Your task to perform on an android device: turn off translation in the chrome app Image 0: 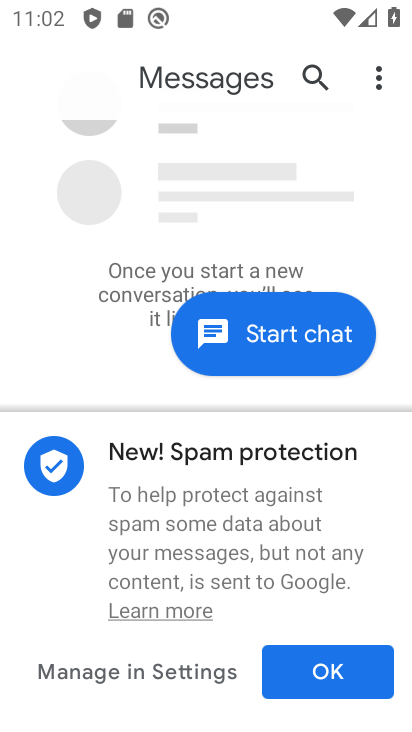
Step 0: drag from (367, 554) to (341, 423)
Your task to perform on an android device: turn off translation in the chrome app Image 1: 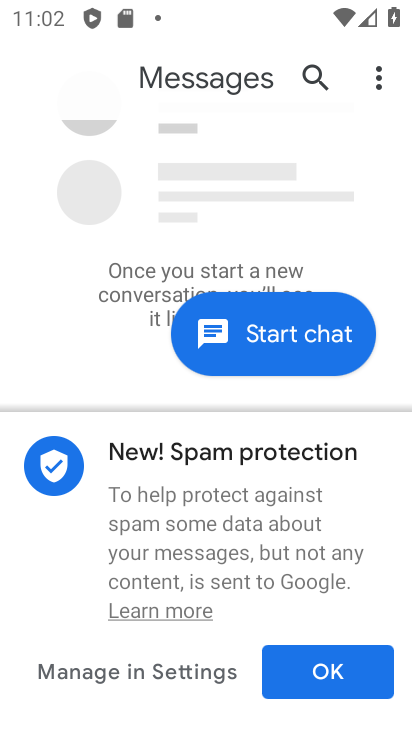
Step 1: press home button
Your task to perform on an android device: turn off translation in the chrome app Image 2: 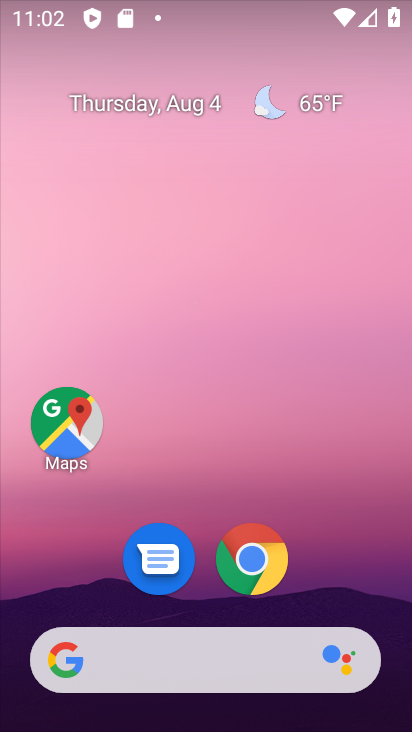
Step 2: click (273, 562)
Your task to perform on an android device: turn off translation in the chrome app Image 3: 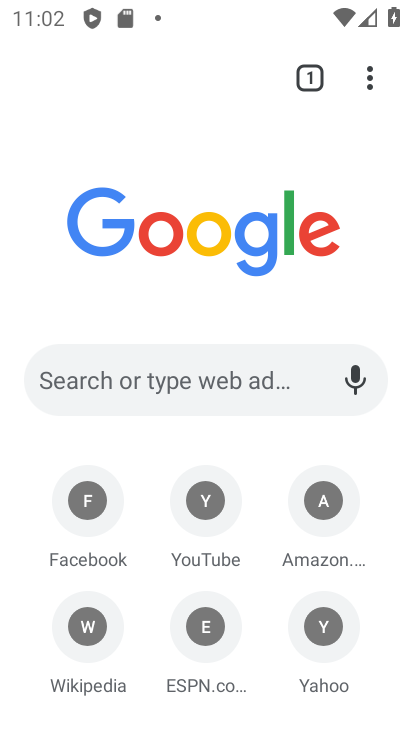
Step 3: click (378, 94)
Your task to perform on an android device: turn off translation in the chrome app Image 4: 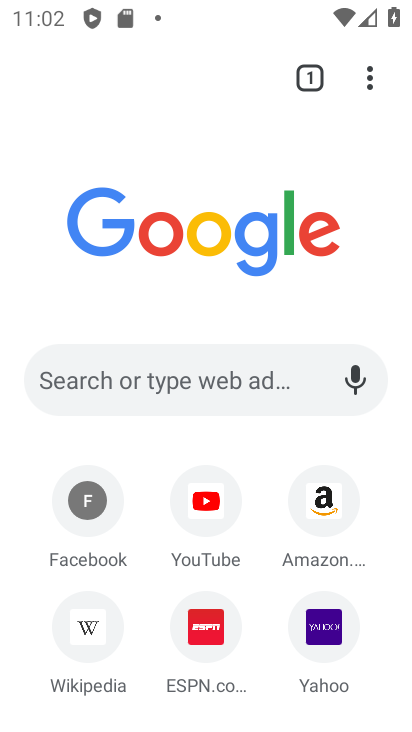
Step 4: click (378, 80)
Your task to perform on an android device: turn off translation in the chrome app Image 5: 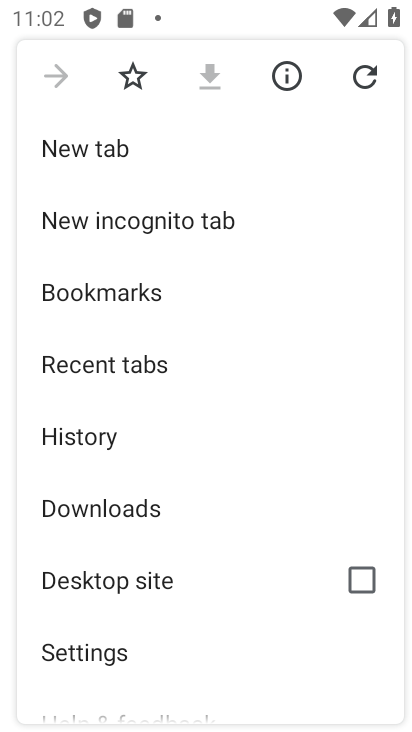
Step 5: click (88, 643)
Your task to perform on an android device: turn off translation in the chrome app Image 6: 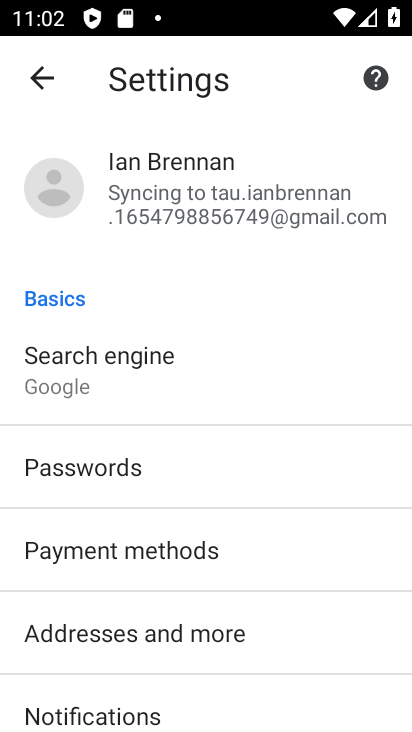
Step 6: drag from (140, 676) to (150, 384)
Your task to perform on an android device: turn off translation in the chrome app Image 7: 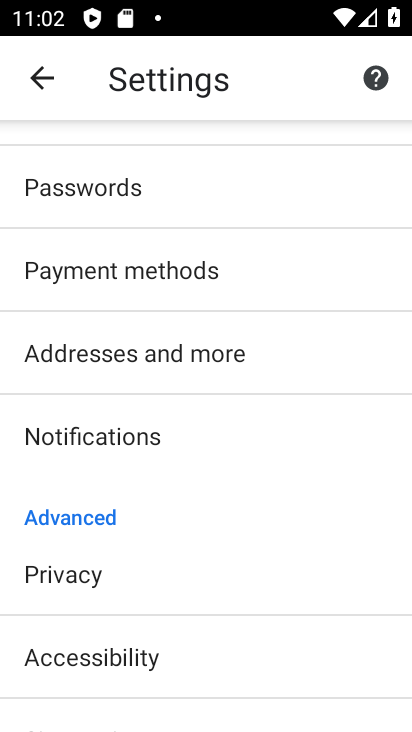
Step 7: drag from (216, 573) to (204, 240)
Your task to perform on an android device: turn off translation in the chrome app Image 8: 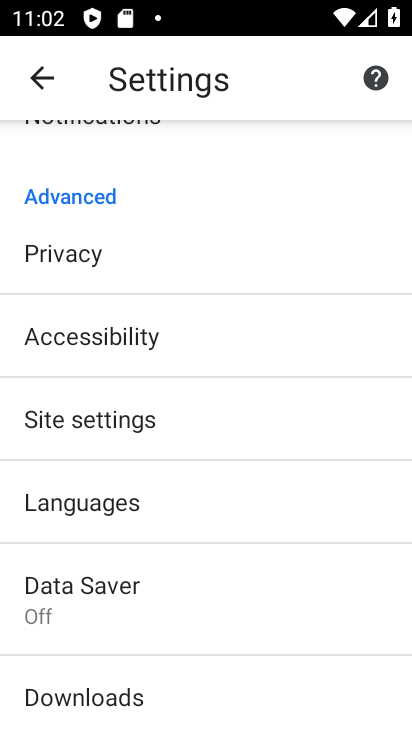
Step 8: click (164, 490)
Your task to perform on an android device: turn off translation in the chrome app Image 9: 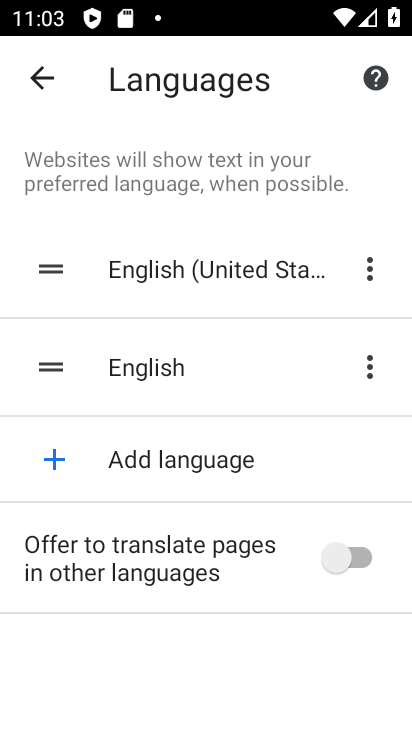
Step 9: task complete